Your task to perform on an android device: Open calendar and show me the second week of next month Image 0: 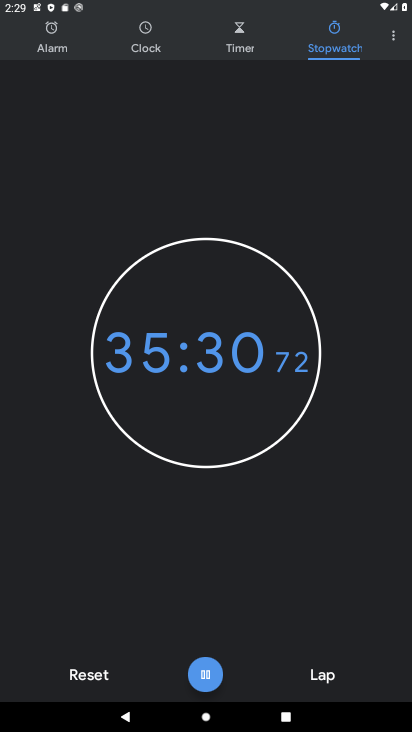
Step 0: press home button
Your task to perform on an android device: Open calendar and show me the second week of next month Image 1: 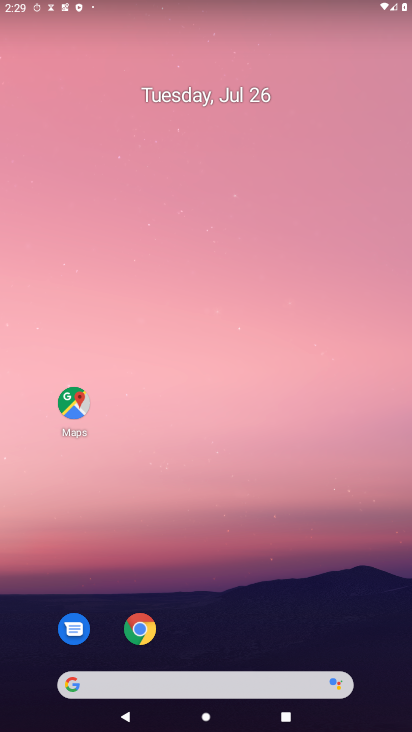
Step 1: drag from (251, 658) to (226, 0)
Your task to perform on an android device: Open calendar and show me the second week of next month Image 2: 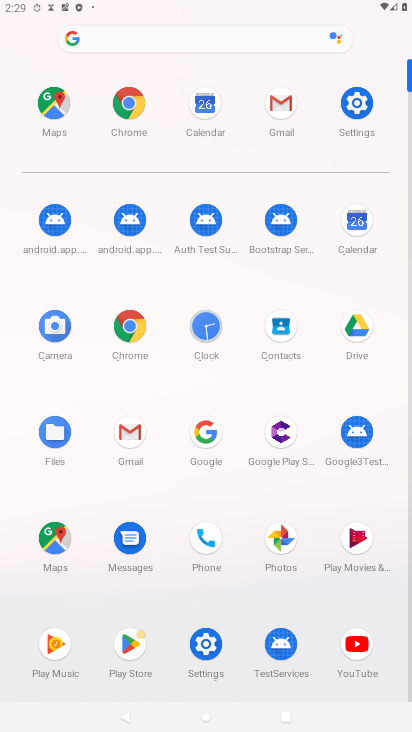
Step 2: click (351, 230)
Your task to perform on an android device: Open calendar and show me the second week of next month Image 3: 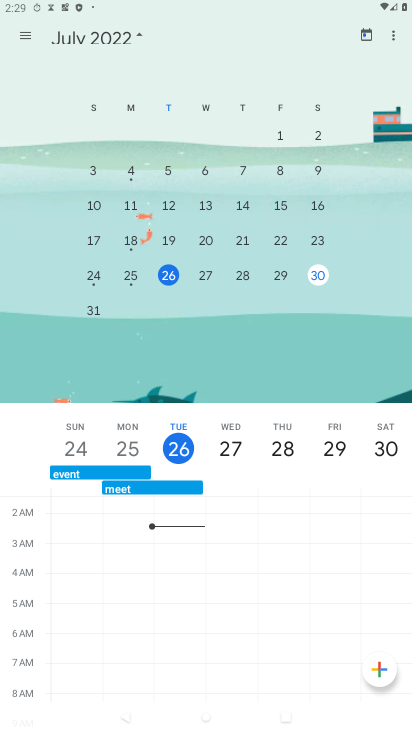
Step 3: drag from (310, 206) to (9, 205)
Your task to perform on an android device: Open calendar and show me the second week of next month Image 4: 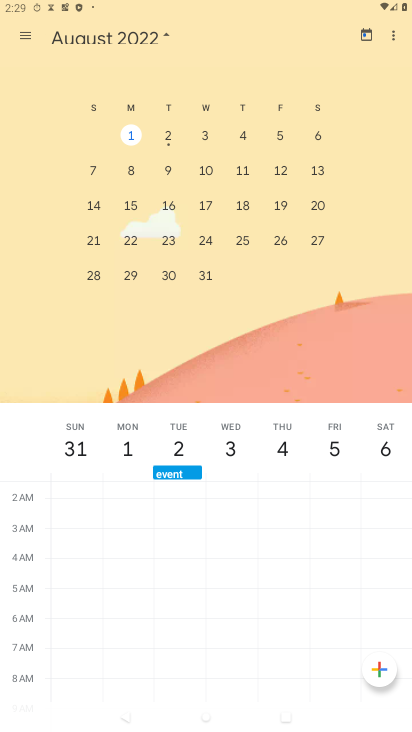
Step 4: click (209, 167)
Your task to perform on an android device: Open calendar and show me the second week of next month Image 5: 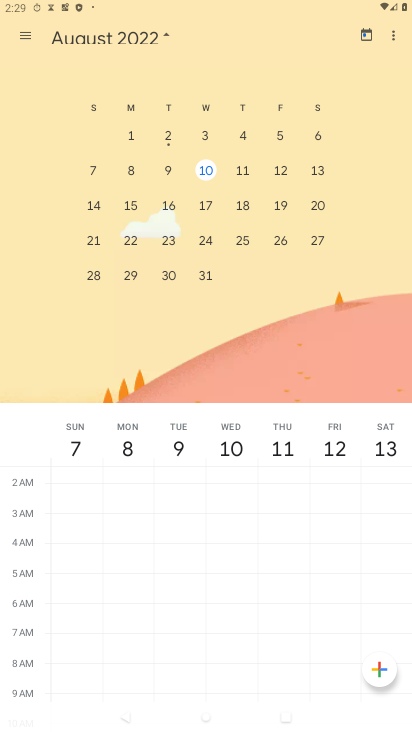
Step 5: task complete